Your task to perform on an android device: Open the web browser Image 0: 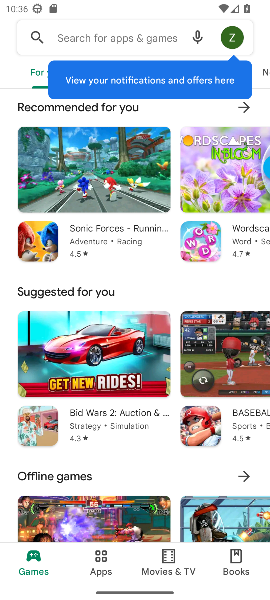
Step 0: press home button
Your task to perform on an android device: Open the web browser Image 1: 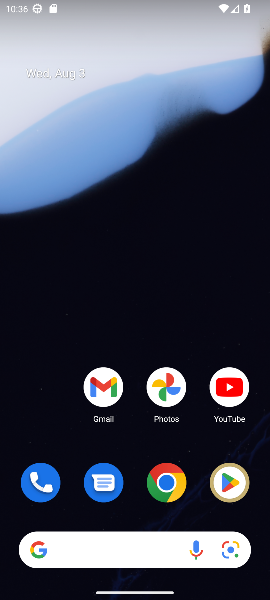
Step 1: click (175, 487)
Your task to perform on an android device: Open the web browser Image 2: 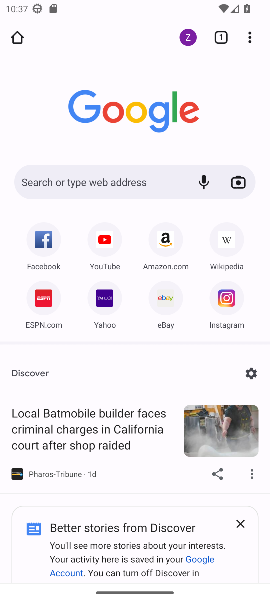
Step 2: task complete